Your task to perform on an android device: star an email in the gmail app Image 0: 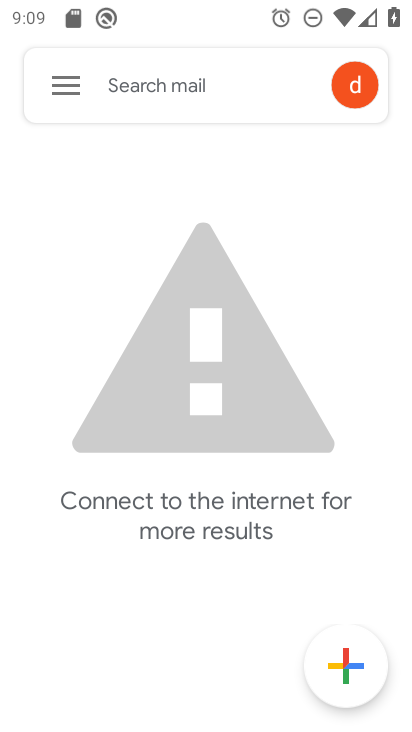
Step 0: press home button
Your task to perform on an android device: star an email in the gmail app Image 1: 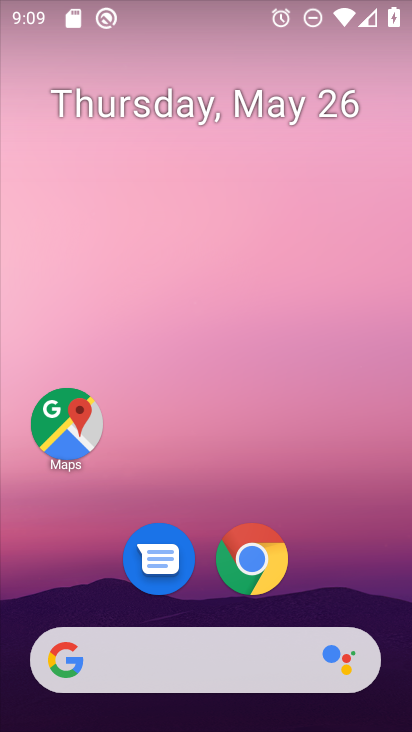
Step 1: drag from (322, 573) to (327, 72)
Your task to perform on an android device: star an email in the gmail app Image 2: 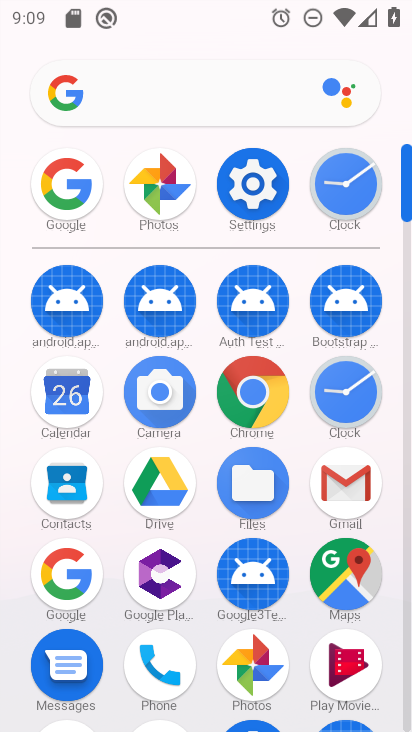
Step 2: click (352, 488)
Your task to perform on an android device: star an email in the gmail app Image 3: 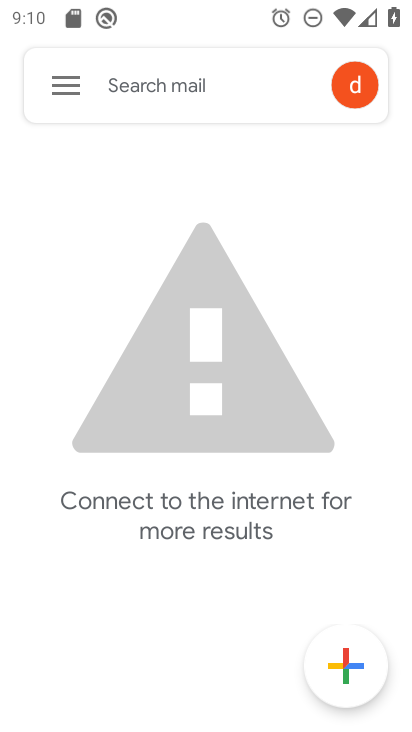
Step 3: task complete